Your task to perform on an android device: Go to network settings Image 0: 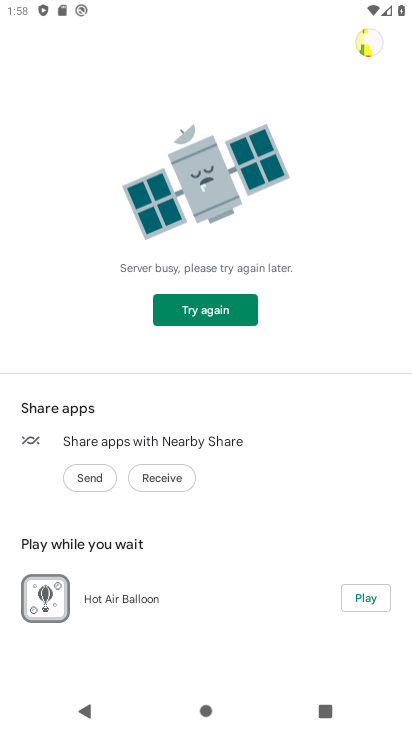
Step 0: press home button
Your task to perform on an android device: Go to network settings Image 1: 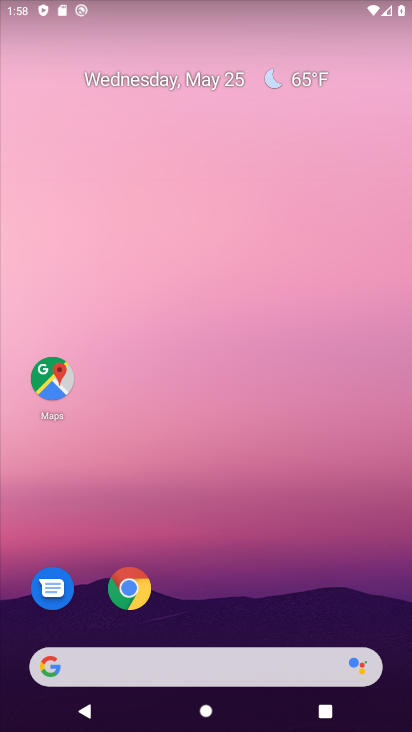
Step 1: drag from (182, 621) to (211, 172)
Your task to perform on an android device: Go to network settings Image 2: 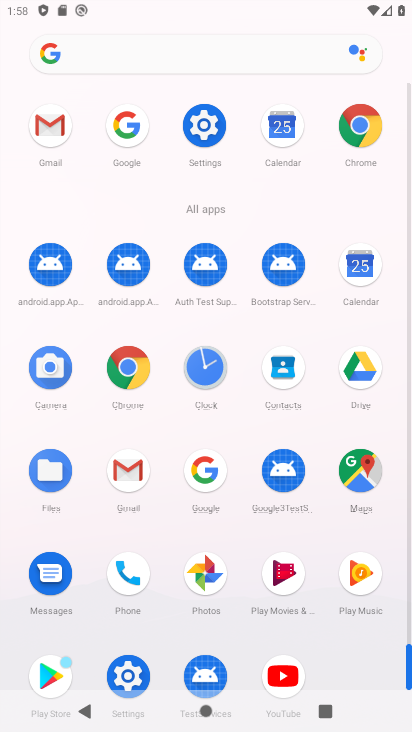
Step 2: click (203, 124)
Your task to perform on an android device: Go to network settings Image 3: 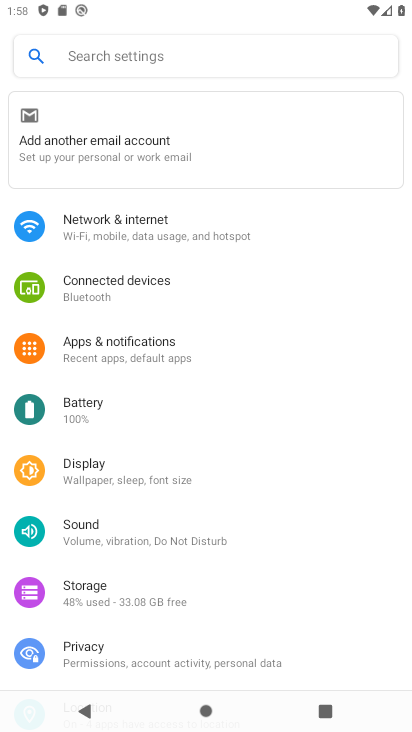
Step 3: click (167, 237)
Your task to perform on an android device: Go to network settings Image 4: 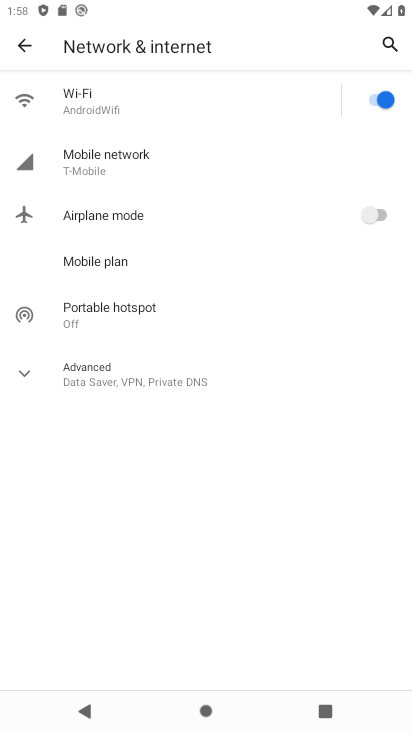
Step 4: click (101, 164)
Your task to perform on an android device: Go to network settings Image 5: 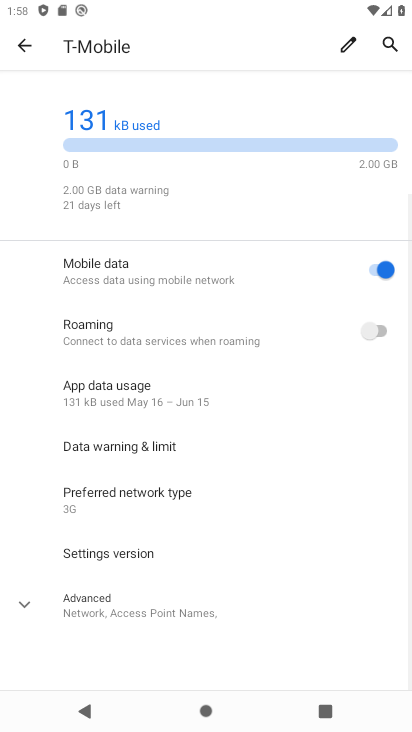
Step 5: task complete